Your task to perform on an android device: Open Chrome and go to the settings page Image 0: 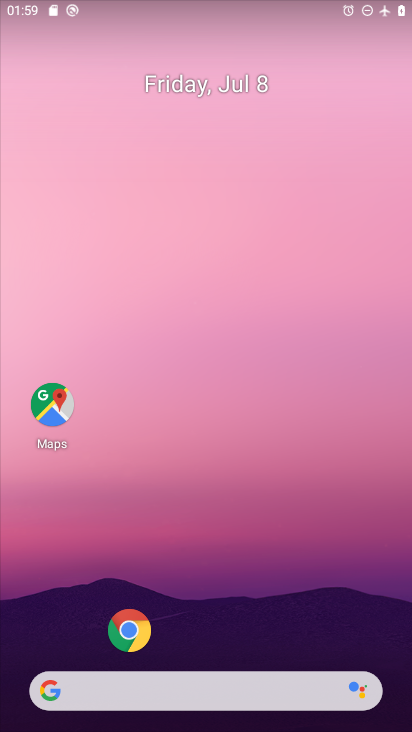
Step 0: drag from (216, 693) to (281, 48)
Your task to perform on an android device: Open Chrome and go to the settings page Image 1: 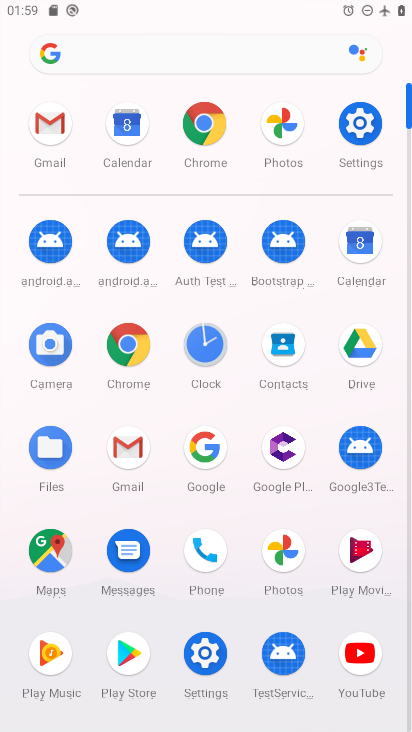
Step 1: click (134, 348)
Your task to perform on an android device: Open Chrome and go to the settings page Image 2: 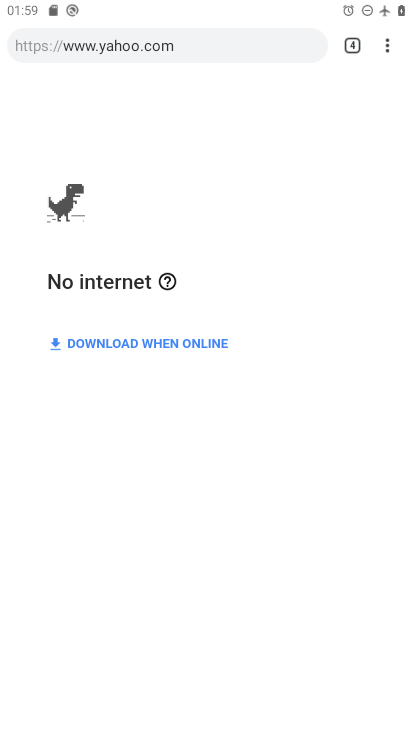
Step 2: task complete